Your task to perform on an android device: Open ESPN.com Image 0: 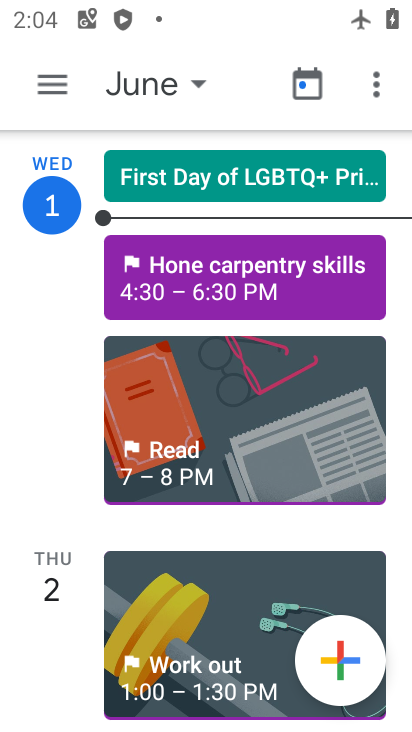
Step 0: press home button
Your task to perform on an android device: Open ESPN.com Image 1: 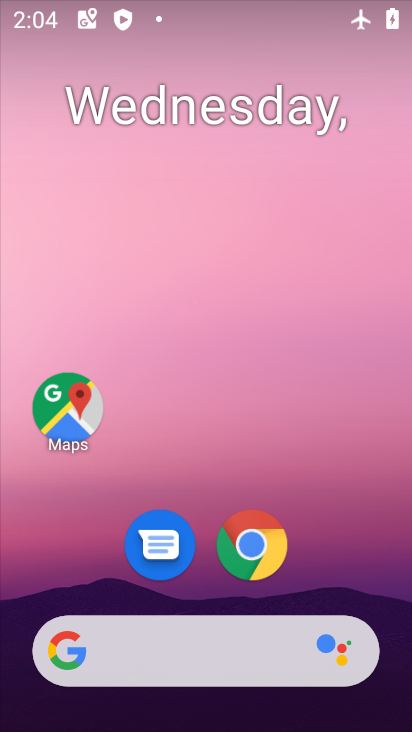
Step 1: click (250, 550)
Your task to perform on an android device: Open ESPN.com Image 2: 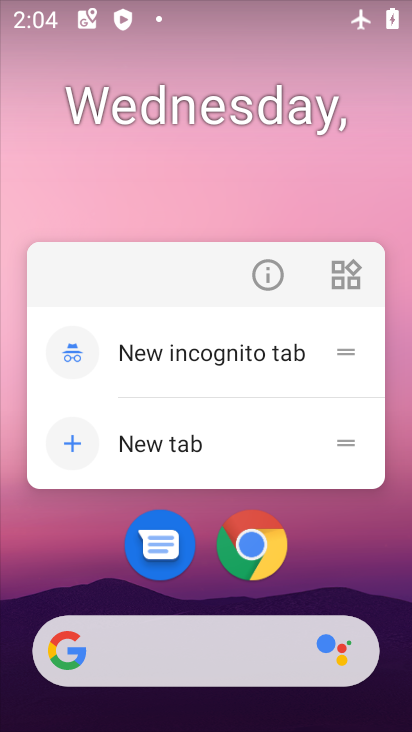
Step 2: click (256, 541)
Your task to perform on an android device: Open ESPN.com Image 3: 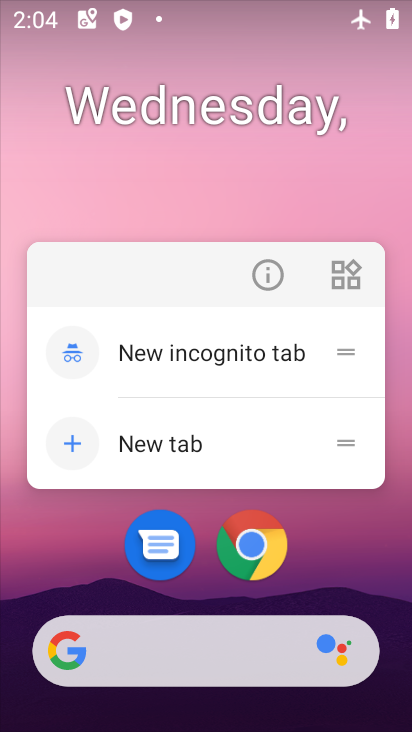
Step 3: click (339, 544)
Your task to perform on an android device: Open ESPN.com Image 4: 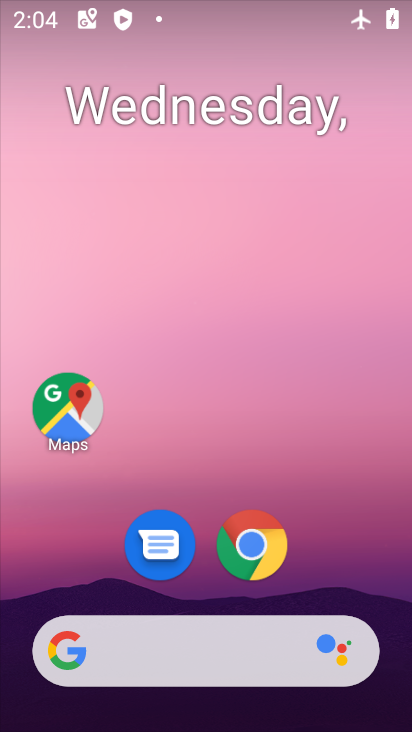
Step 4: drag from (335, 546) to (361, 102)
Your task to perform on an android device: Open ESPN.com Image 5: 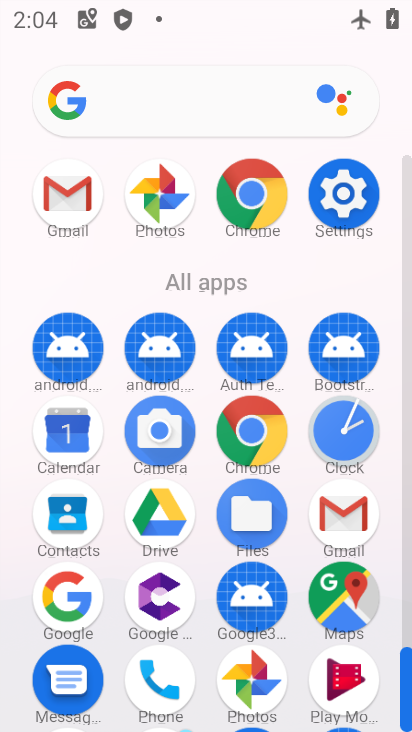
Step 5: click (245, 432)
Your task to perform on an android device: Open ESPN.com Image 6: 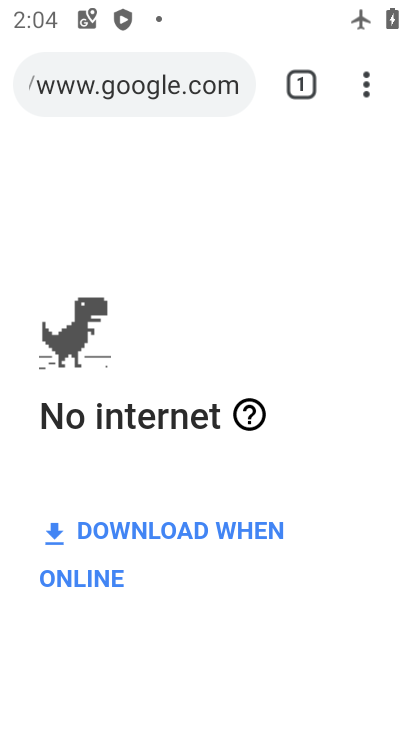
Step 6: click (188, 87)
Your task to perform on an android device: Open ESPN.com Image 7: 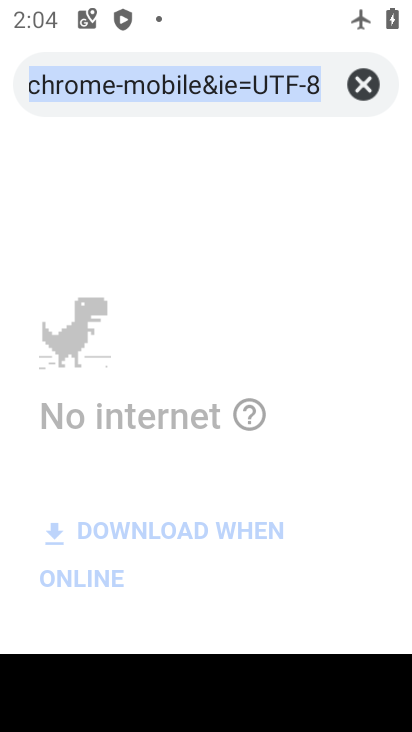
Step 7: type "espn.com"
Your task to perform on an android device: Open ESPN.com Image 8: 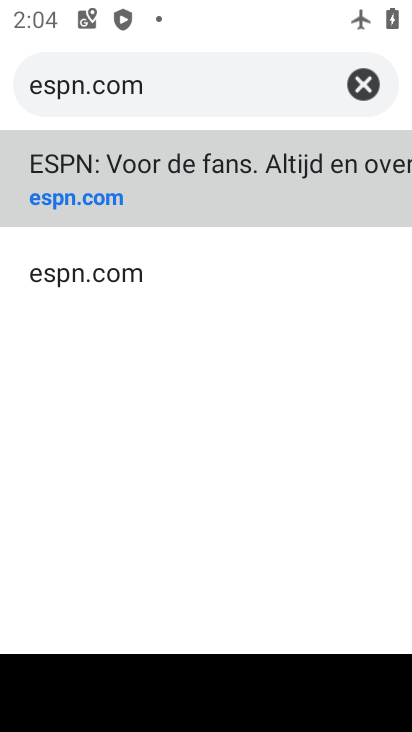
Step 8: click (40, 195)
Your task to perform on an android device: Open ESPN.com Image 9: 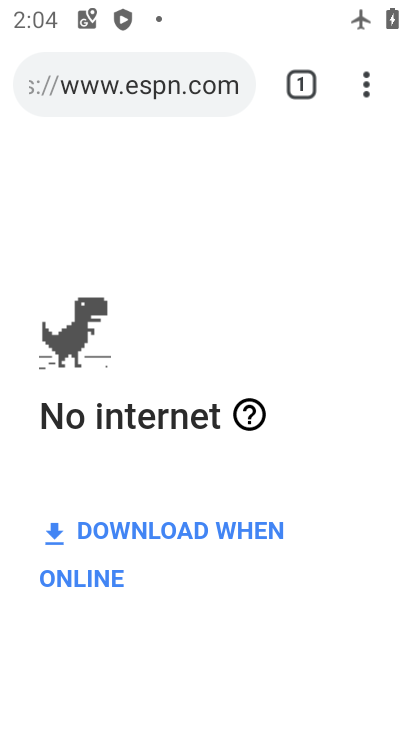
Step 9: task complete